Your task to perform on an android device: open app "Google Docs" Image 0: 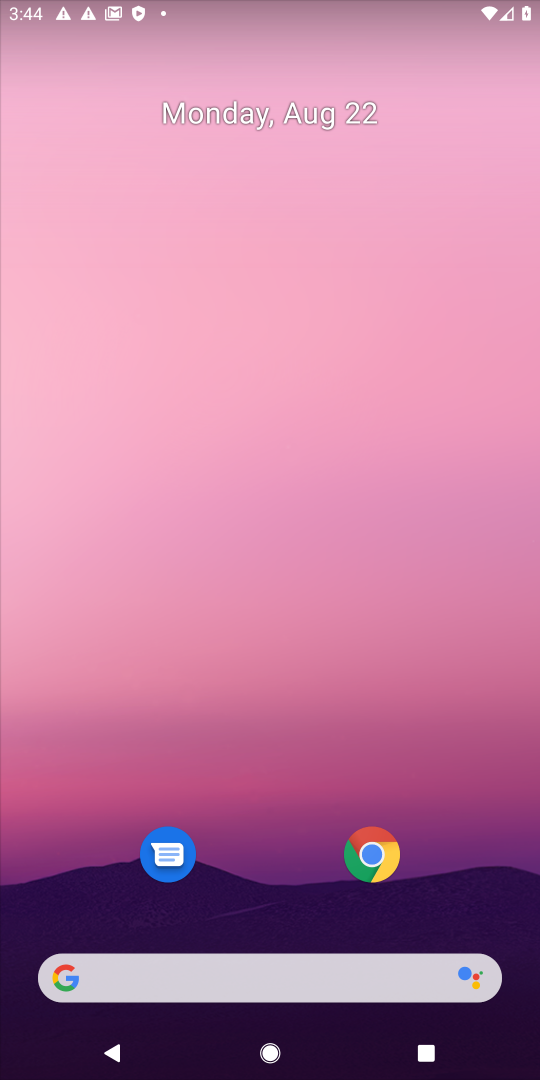
Step 0: drag from (273, 951) to (287, 8)
Your task to perform on an android device: open app "Google Docs" Image 1: 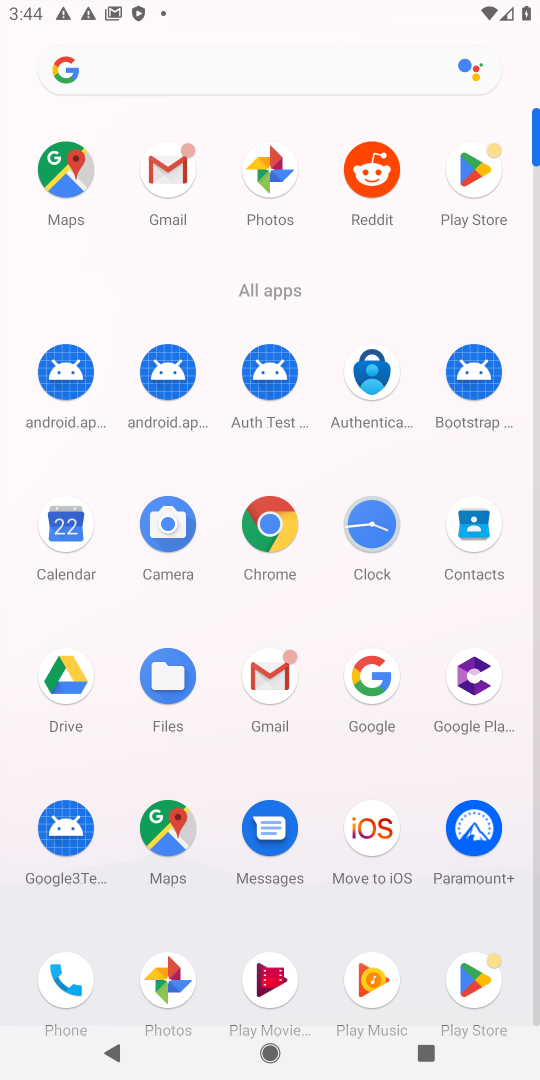
Step 1: click (475, 984)
Your task to perform on an android device: open app "Google Docs" Image 2: 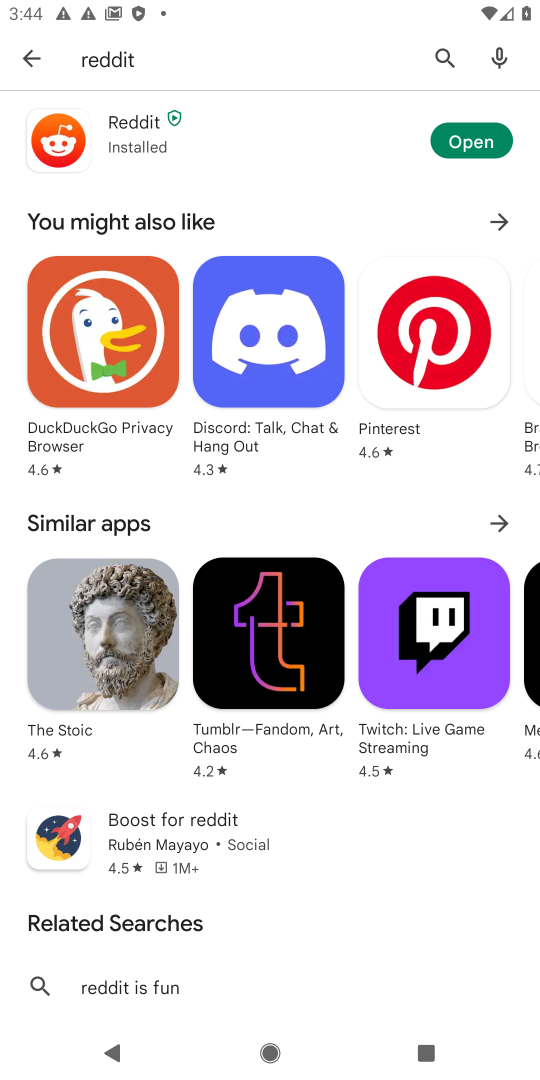
Step 2: click (444, 49)
Your task to perform on an android device: open app "Google Docs" Image 3: 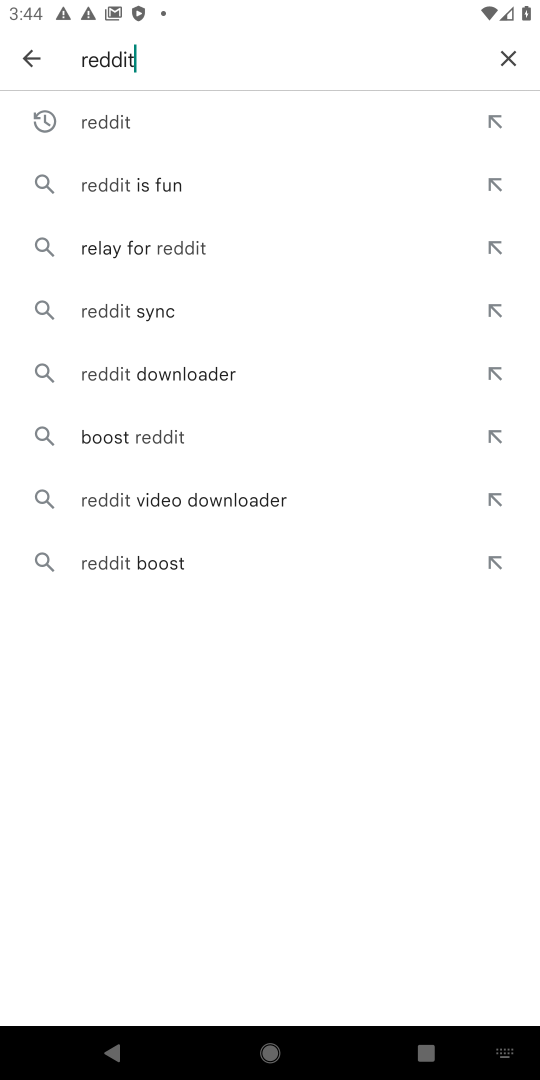
Step 3: click (503, 56)
Your task to perform on an android device: open app "Google Docs" Image 4: 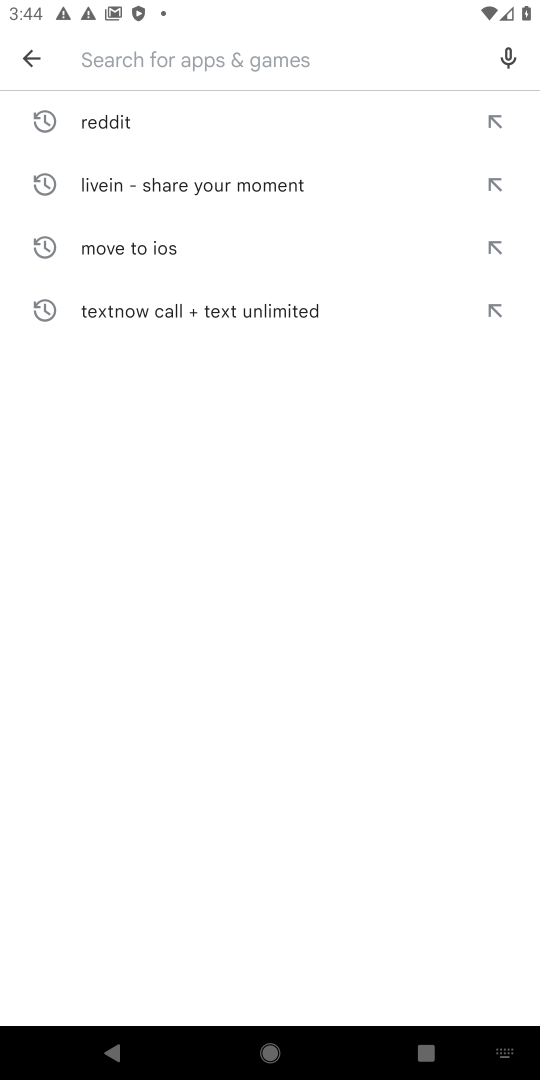
Step 4: type "Google Docs"
Your task to perform on an android device: open app "Google Docs" Image 5: 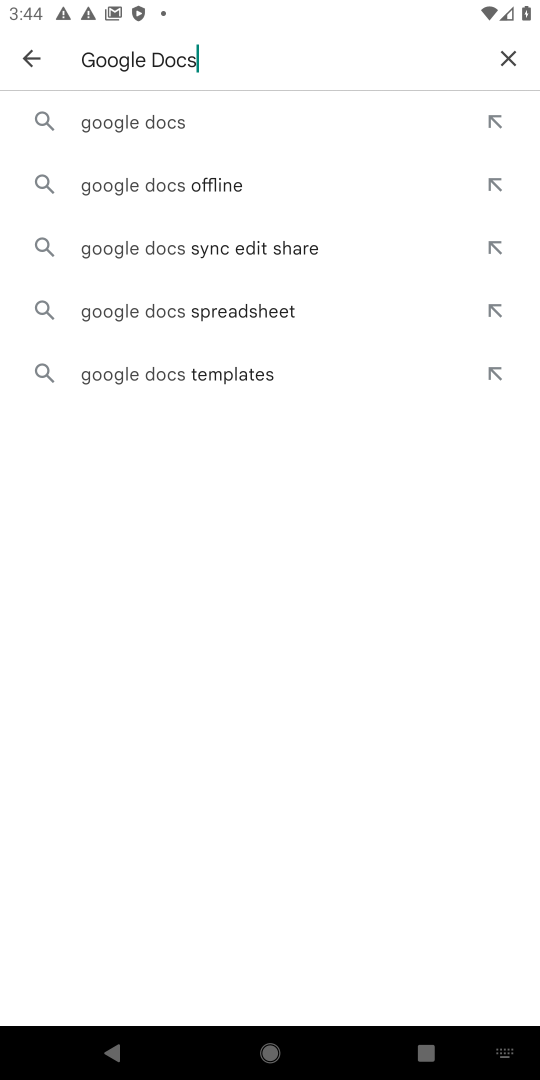
Step 5: click (131, 115)
Your task to perform on an android device: open app "Google Docs" Image 6: 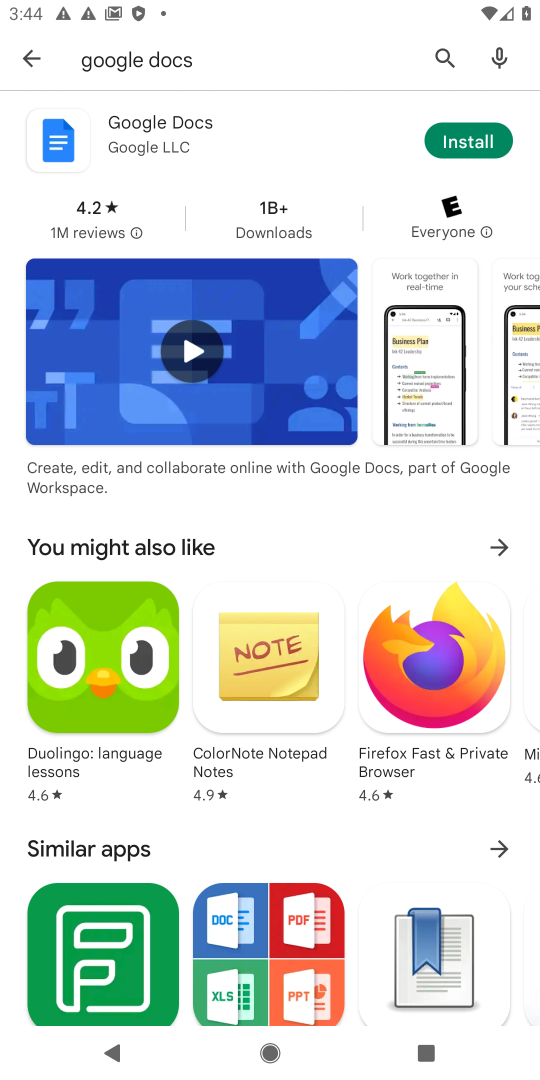
Step 6: task complete